Your task to perform on an android device: Do I have any events this weekend? Image 0: 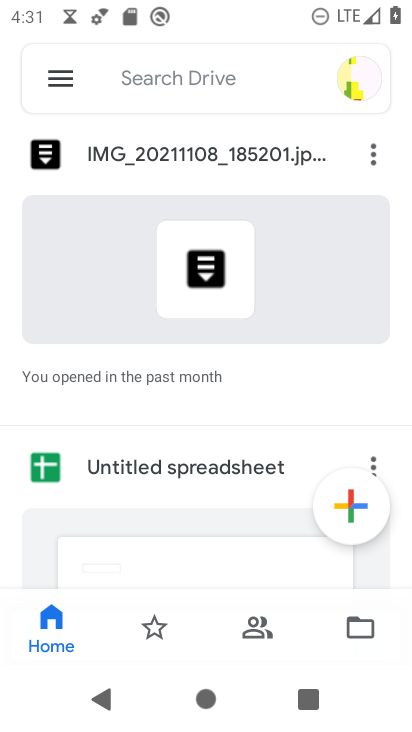
Step 0: press home button
Your task to perform on an android device: Do I have any events this weekend? Image 1: 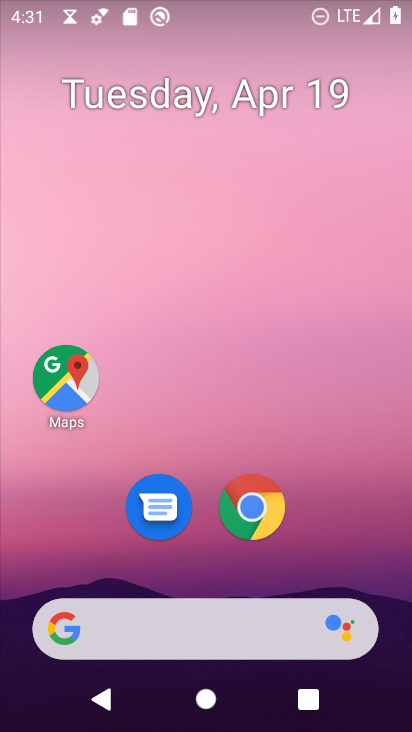
Step 1: drag from (342, 538) to (404, 0)
Your task to perform on an android device: Do I have any events this weekend? Image 2: 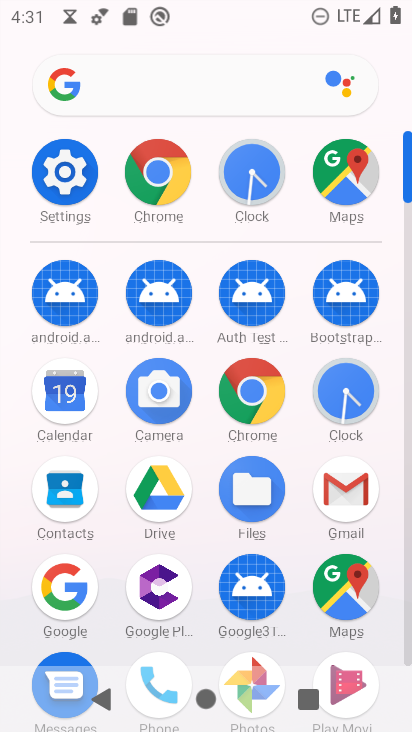
Step 2: click (66, 412)
Your task to perform on an android device: Do I have any events this weekend? Image 3: 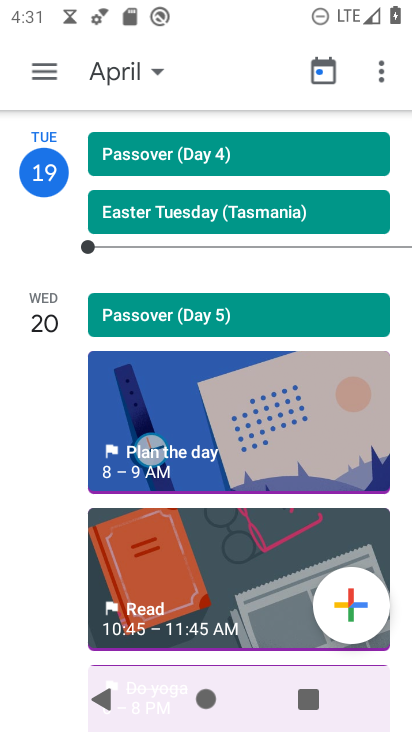
Step 3: click (105, 75)
Your task to perform on an android device: Do I have any events this weekend? Image 4: 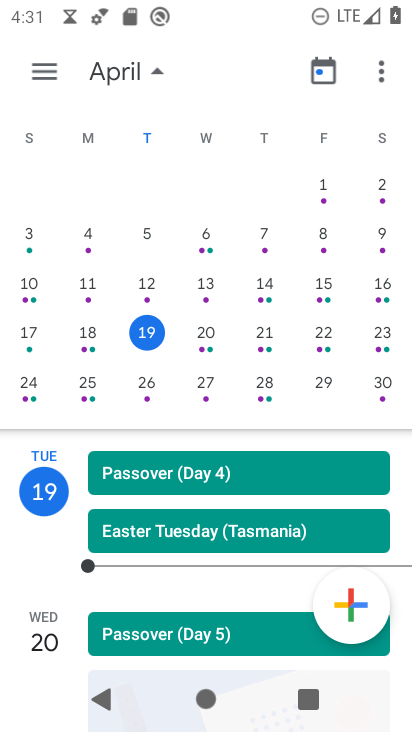
Step 4: click (390, 347)
Your task to perform on an android device: Do I have any events this weekend? Image 5: 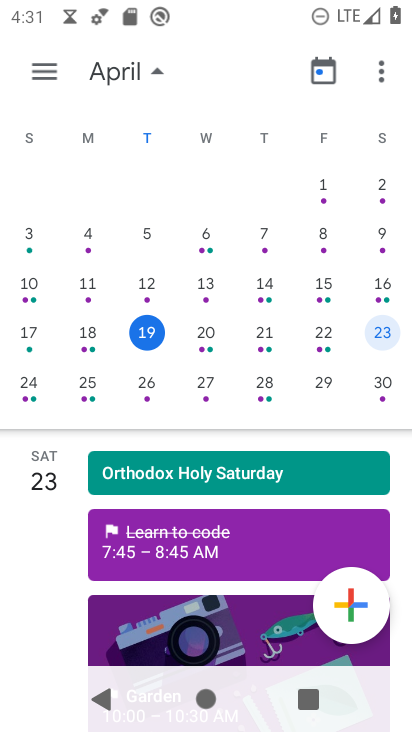
Step 5: click (34, 400)
Your task to perform on an android device: Do I have any events this weekend? Image 6: 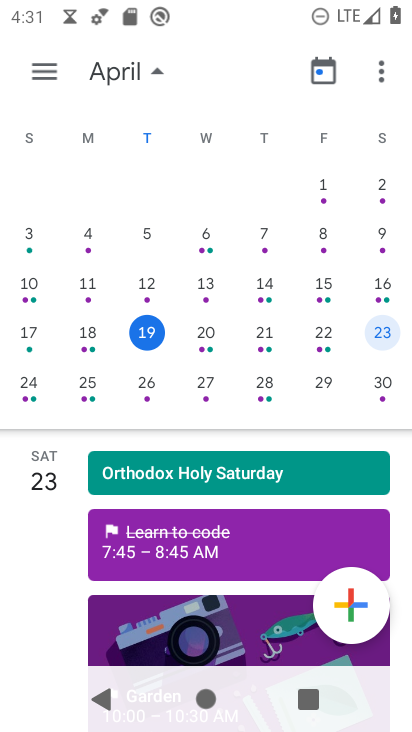
Step 6: click (41, 391)
Your task to perform on an android device: Do I have any events this weekend? Image 7: 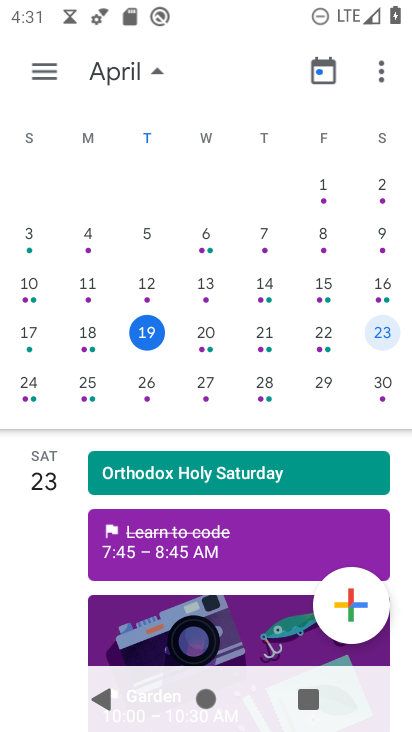
Step 7: click (45, 395)
Your task to perform on an android device: Do I have any events this weekend? Image 8: 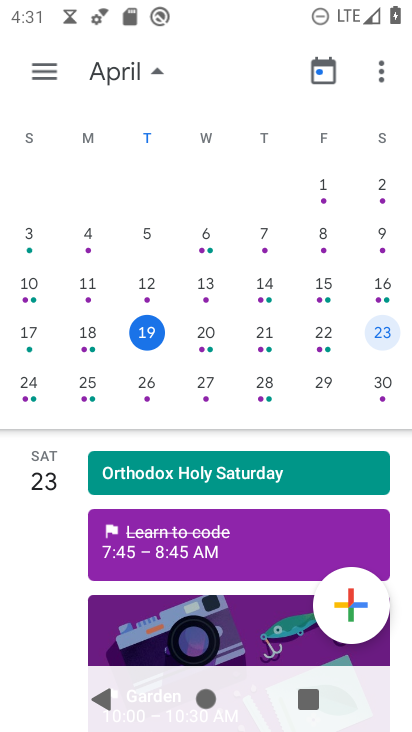
Step 8: click (40, 399)
Your task to perform on an android device: Do I have any events this weekend? Image 9: 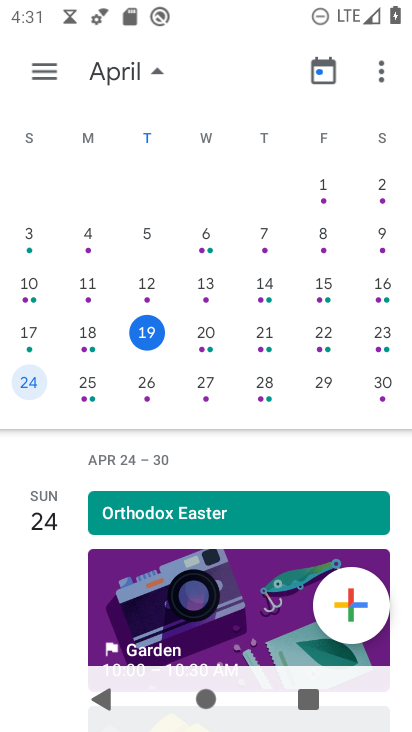
Step 9: task complete